Your task to perform on an android device: open a new tab in the chrome app Image 0: 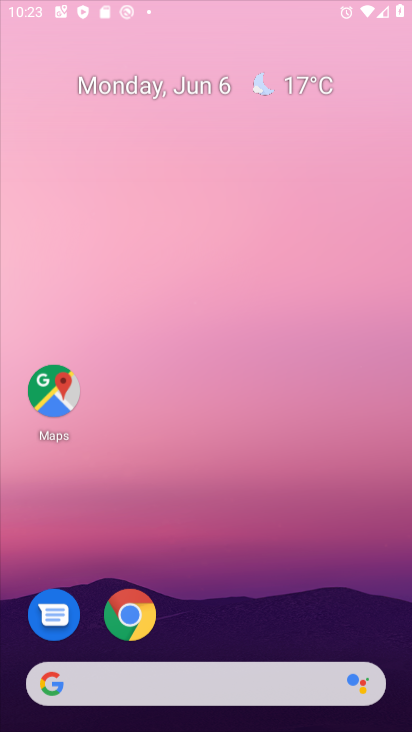
Step 0: press home button
Your task to perform on an android device: open a new tab in the chrome app Image 1: 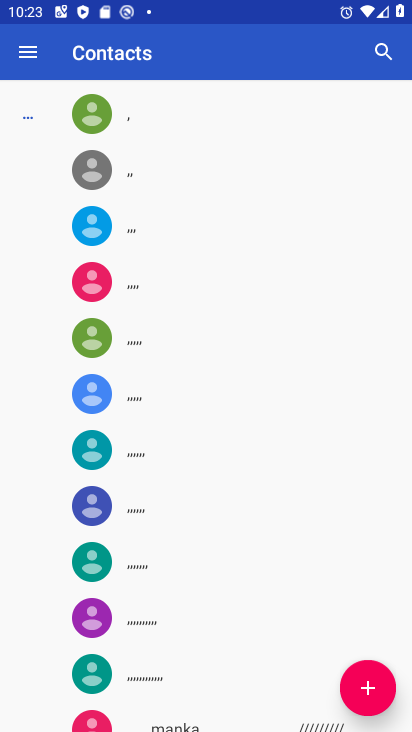
Step 1: drag from (213, 631) to (234, 51)
Your task to perform on an android device: open a new tab in the chrome app Image 2: 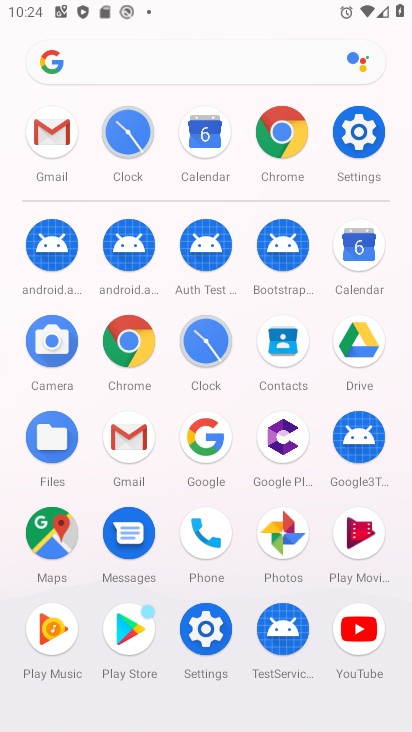
Step 2: click (278, 127)
Your task to perform on an android device: open a new tab in the chrome app Image 3: 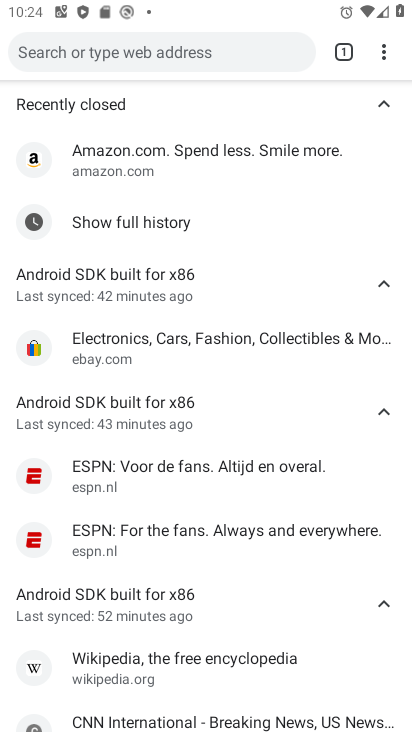
Step 3: click (345, 49)
Your task to perform on an android device: open a new tab in the chrome app Image 4: 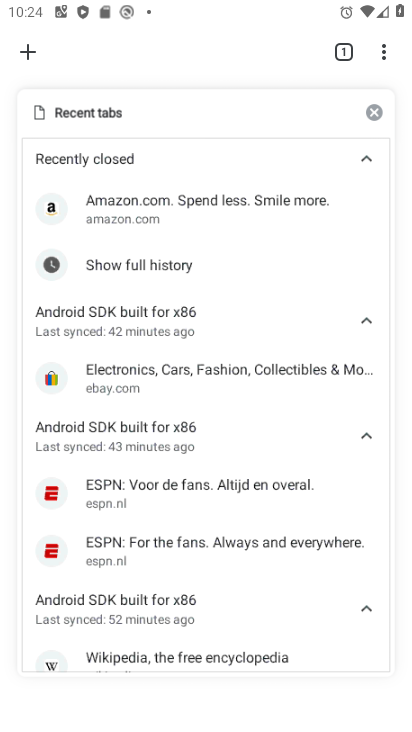
Step 4: click (25, 40)
Your task to perform on an android device: open a new tab in the chrome app Image 5: 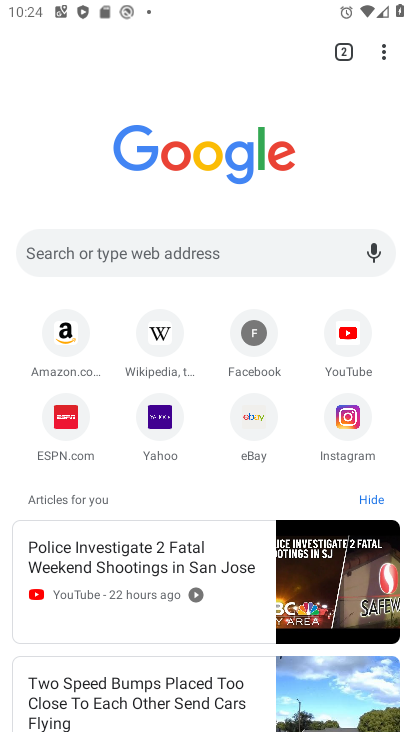
Step 5: task complete